Your task to perform on an android device: Open eBay Image 0: 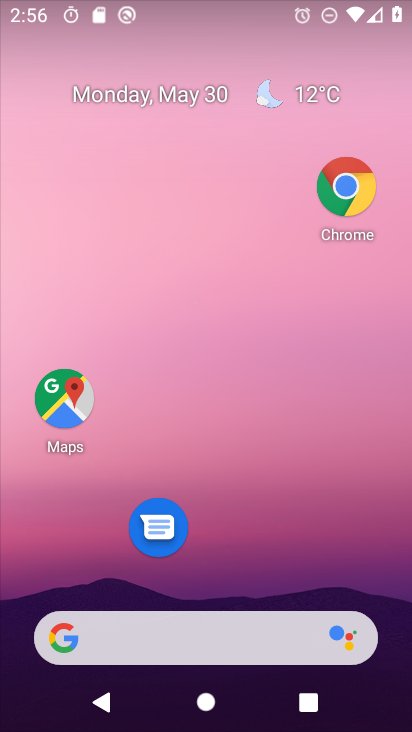
Step 0: click (291, 61)
Your task to perform on an android device: Open eBay Image 1: 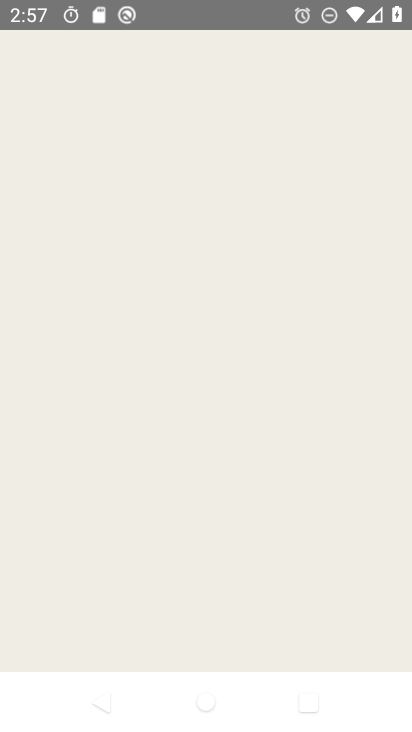
Step 1: press home button
Your task to perform on an android device: Open eBay Image 2: 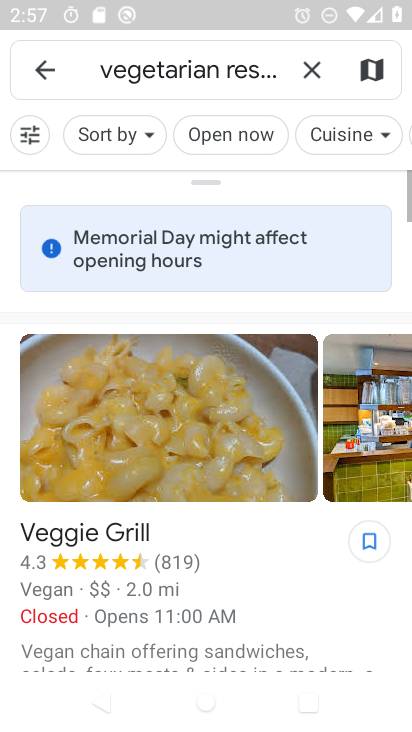
Step 2: drag from (200, 618) to (233, 206)
Your task to perform on an android device: Open eBay Image 3: 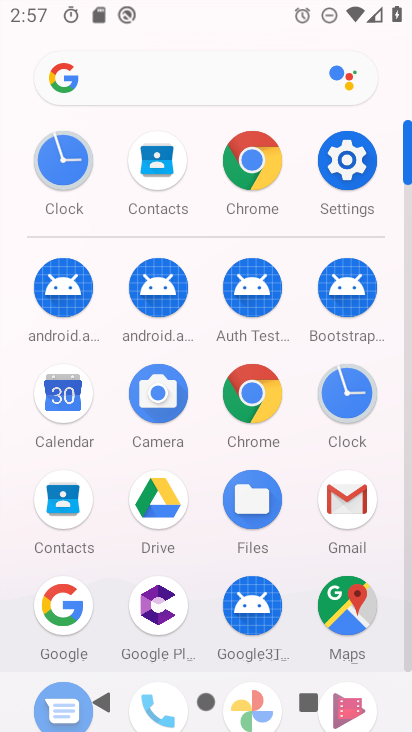
Step 3: click (167, 89)
Your task to perform on an android device: Open eBay Image 4: 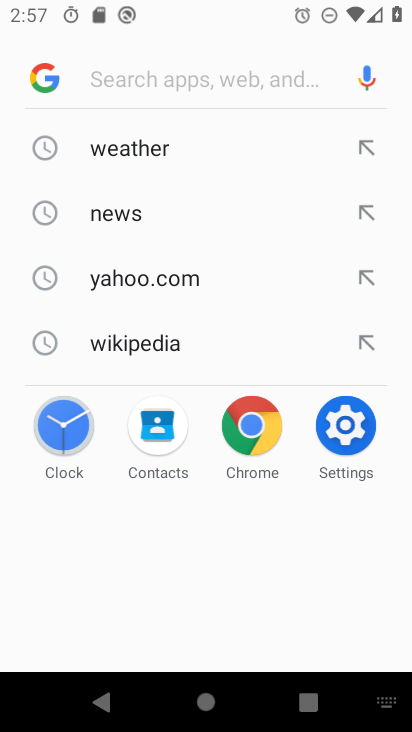
Step 4: type " eBay"
Your task to perform on an android device: Open eBay Image 5: 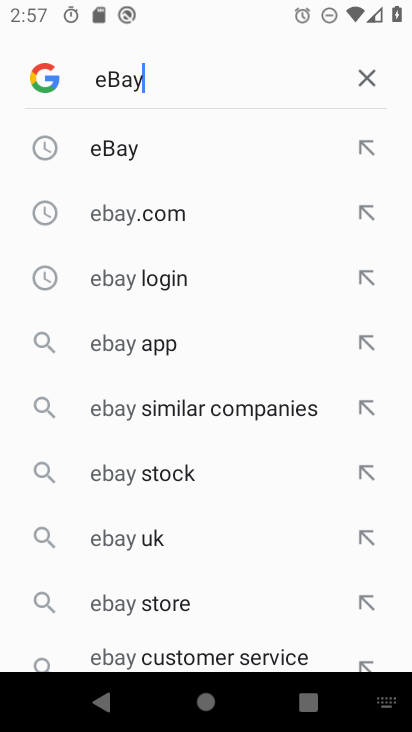
Step 5: type ""
Your task to perform on an android device: Open eBay Image 6: 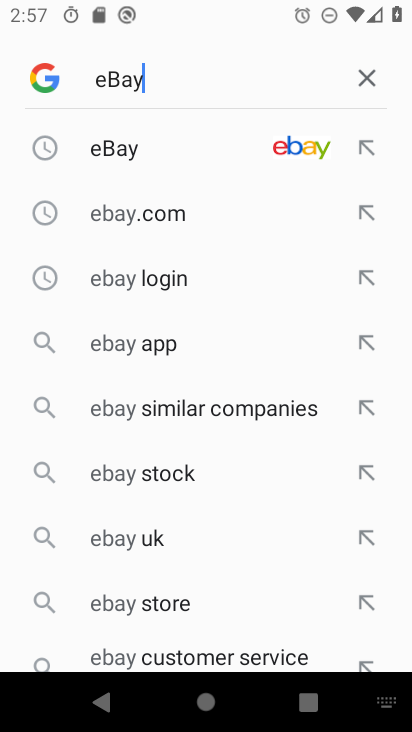
Step 6: click (189, 133)
Your task to perform on an android device: Open eBay Image 7: 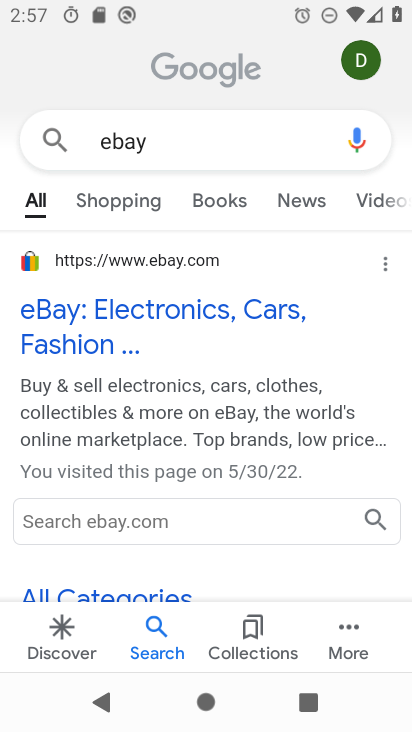
Step 7: click (83, 324)
Your task to perform on an android device: Open eBay Image 8: 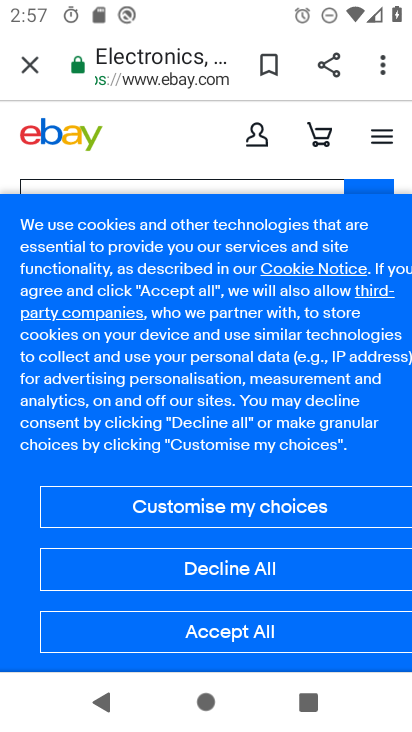
Step 8: task complete